Your task to perform on an android device: Go to Google maps Image 0: 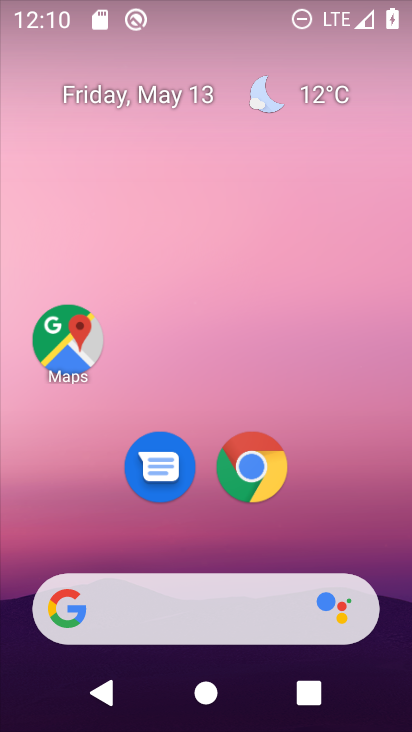
Step 0: drag from (327, 534) to (290, 33)
Your task to perform on an android device: Go to Google maps Image 1: 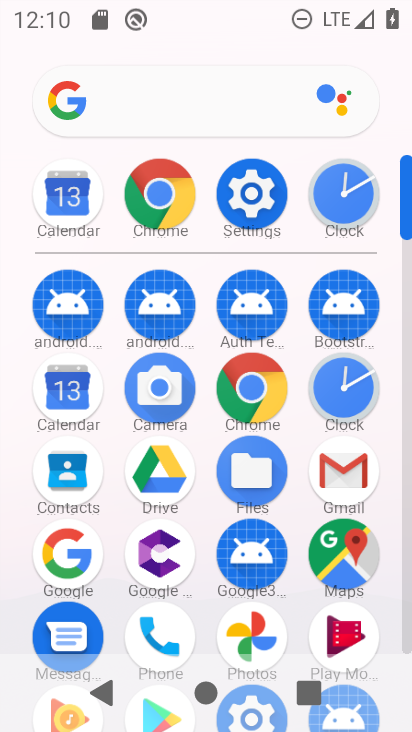
Step 1: click (342, 549)
Your task to perform on an android device: Go to Google maps Image 2: 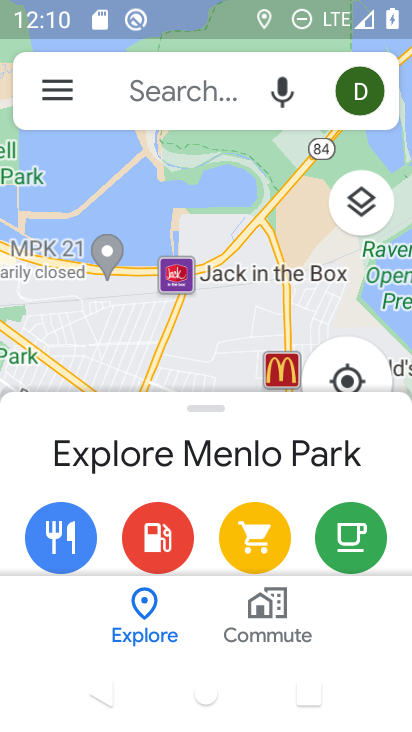
Step 2: task complete